Your task to perform on an android device: Go to Wikipedia Image 0: 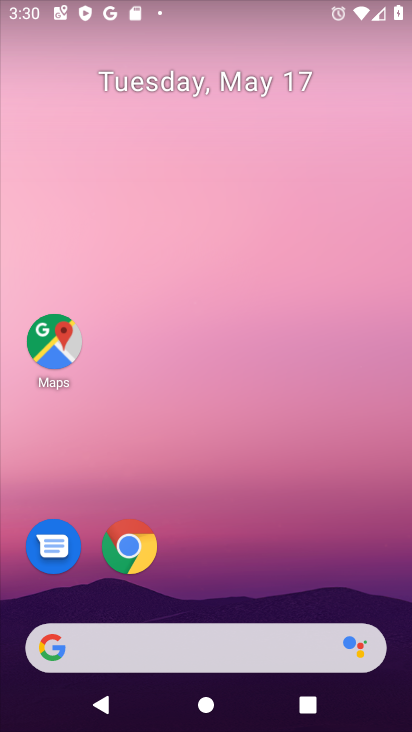
Step 0: click (129, 554)
Your task to perform on an android device: Go to Wikipedia Image 1: 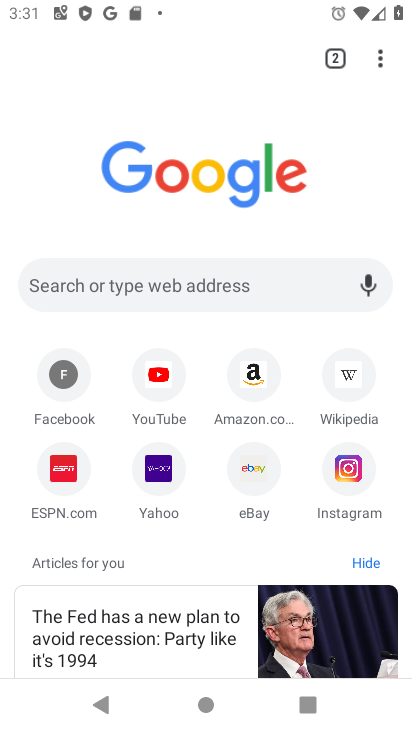
Step 1: click (148, 289)
Your task to perform on an android device: Go to Wikipedia Image 2: 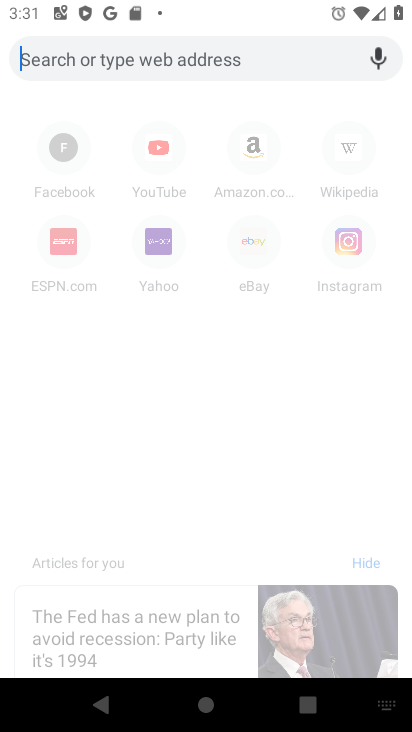
Step 2: type "Wikipedia"
Your task to perform on an android device: Go to Wikipedia Image 3: 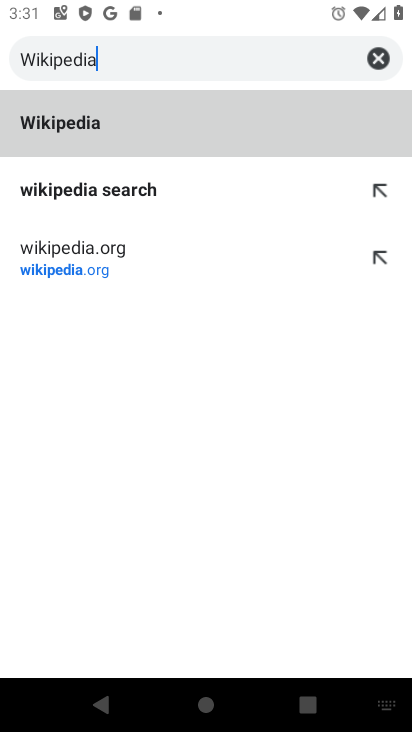
Step 3: click (64, 127)
Your task to perform on an android device: Go to Wikipedia Image 4: 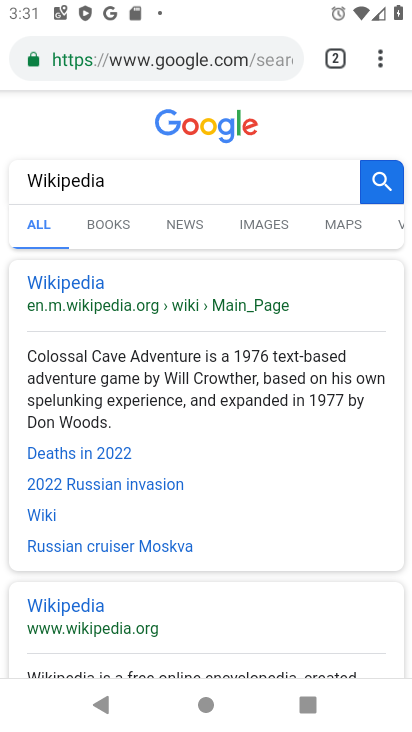
Step 4: task complete